Your task to perform on an android device: uninstall "VLC for Android" Image 0: 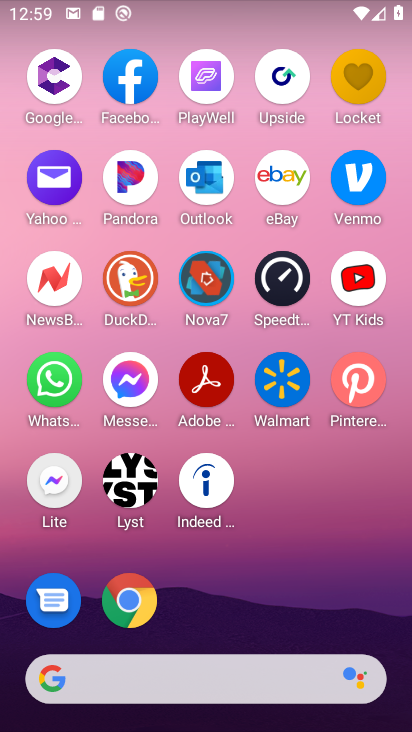
Step 0: drag from (247, 614) to (245, 90)
Your task to perform on an android device: uninstall "VLC for Android" Image 1: 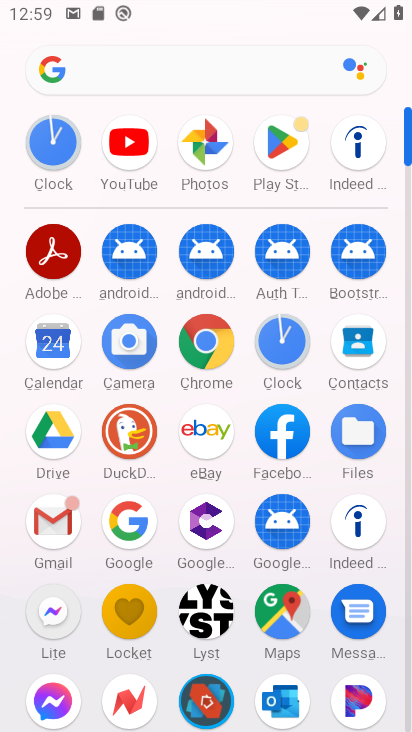
Step 1: click (289, 160)
Your task to perform on an android device: uninstall "VLC for Android" Image 2: 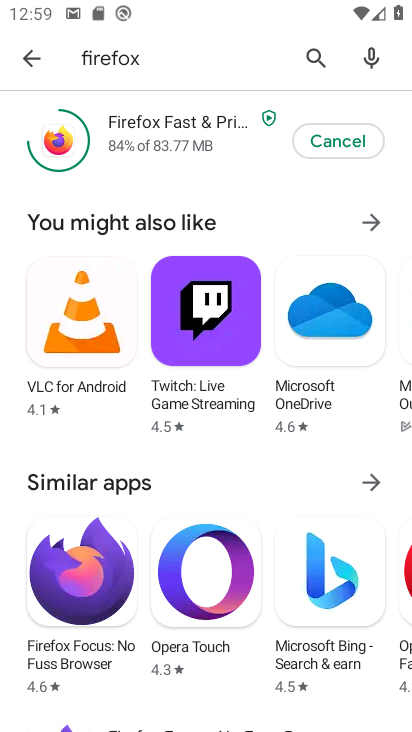
Step 2: click (301, 65)
Your task to perform on an android device: uninstall "VLC for Android" Image 3: 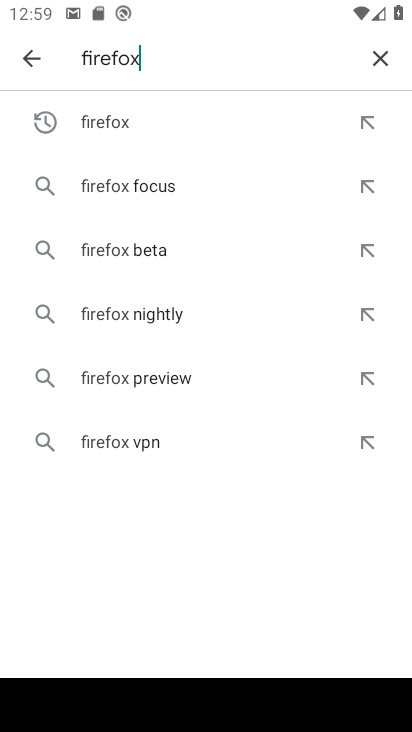
Step 3: click (370, 68)
Your task to perform on an android device: uninstall "VLC for Android" Image 4: 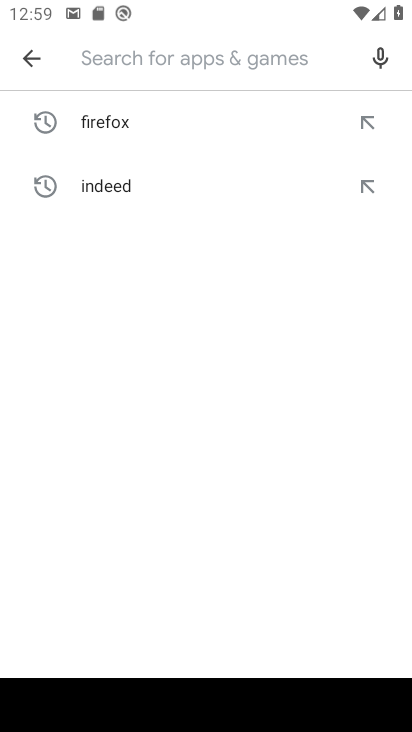
Step 4: type "vlc "
Your task to perform on an android device: uninstall "VLC for Android" Image 5: 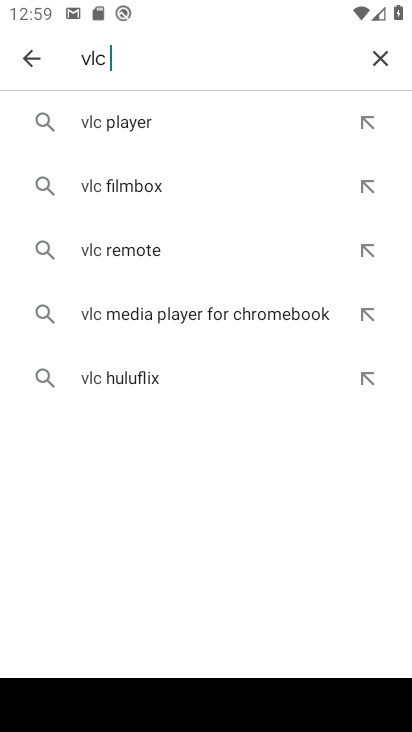
Step 5: click (196, 117)
Your task to perform on an android device: uninstall "VLC for Android" Image 6: 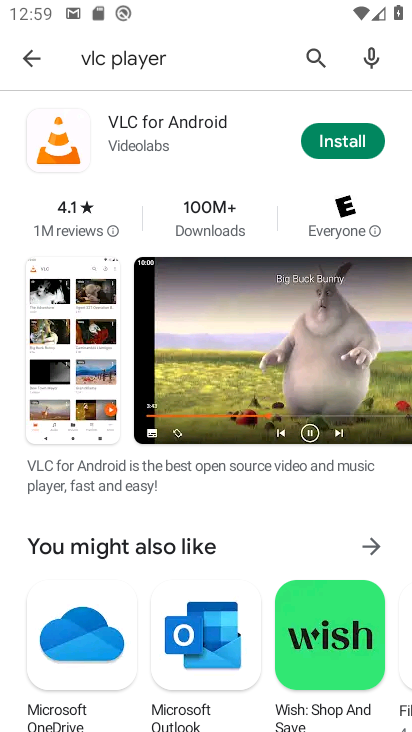
Step 6: click (331, 150)
Your task to perform on an android device: uninstall "VLC for Android" Image 7: 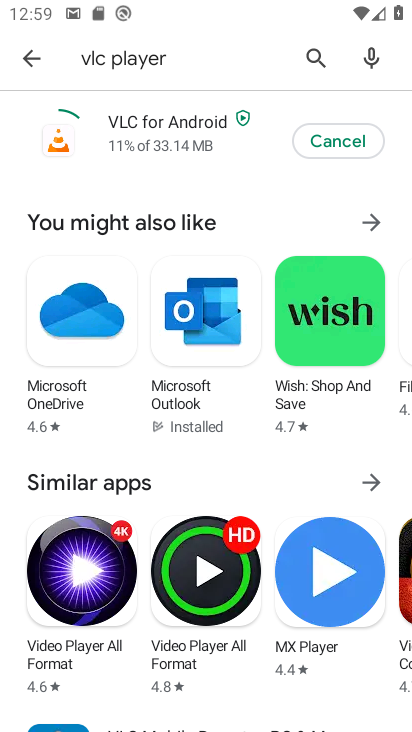
Step 7: task complete